Your task to perform on an android device: see tabs open on other devices in the chrome app Image 0: 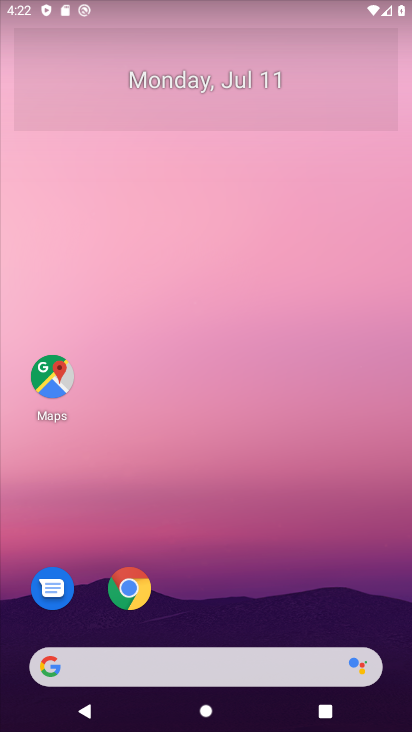
Step 0: click (135, 585)
Your task to perform on an android device: see tabs open on other devices in the chrome app Image 1: 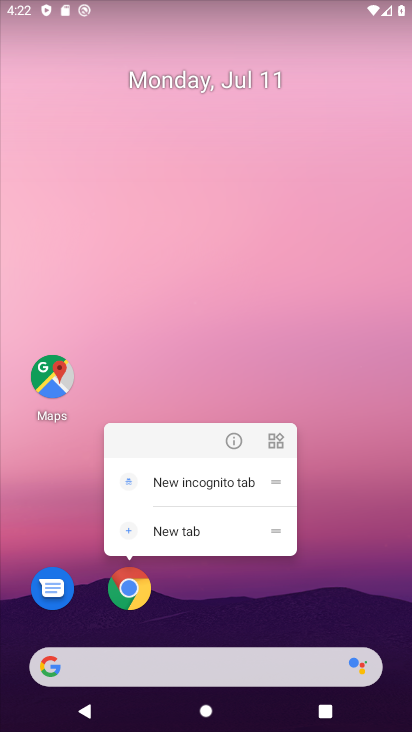
Step 1: click (135, 601)
Your task to perform on an android device: see tabs open on other devices in the chrome app Image 2: 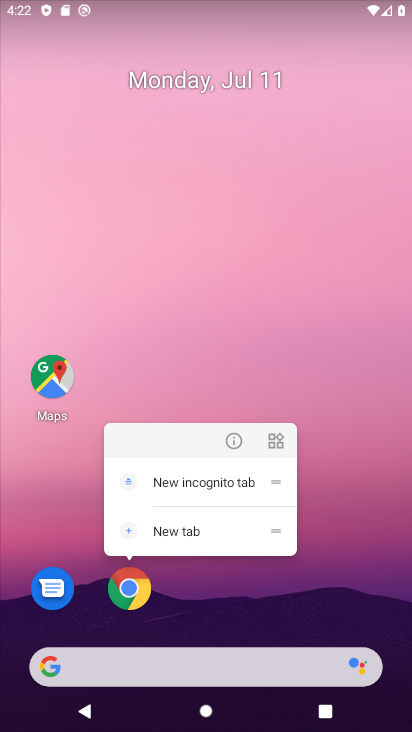
Step 2: click (136, 591)
Your task to perform on an android device: see tabs open on other devices in the chrome app Image 3: 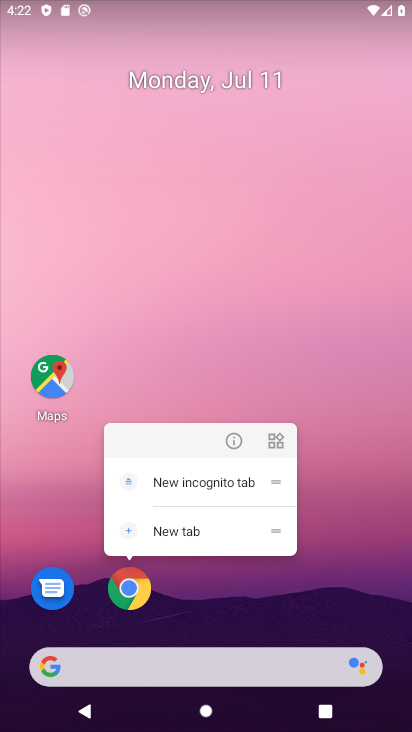
Step 3: click (135, 600)
Your task to perform on an android device: see tabs open on other devices in the chrome app Image 4: 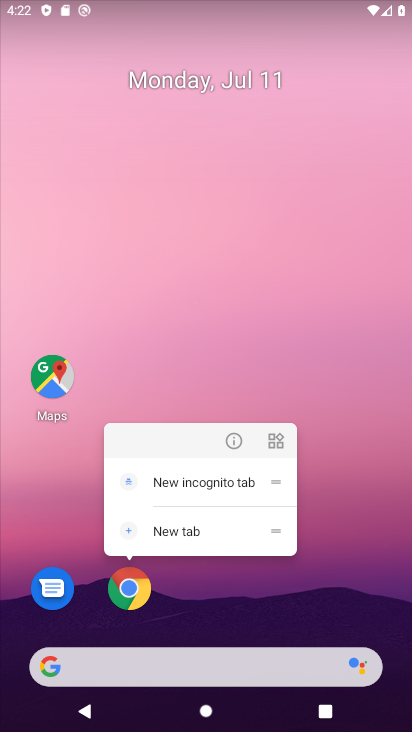
Step 4: task complete